Your task to perform on an android device: What is the news today? Image 0: 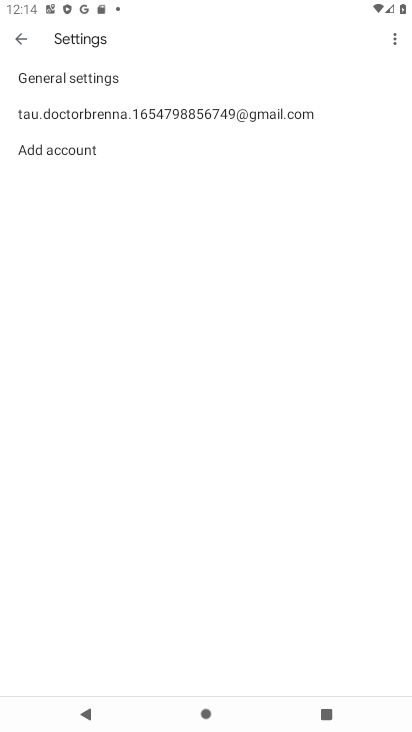
Step 0: press home button
Your task to perform on an android device: What is the news today? Image 1: 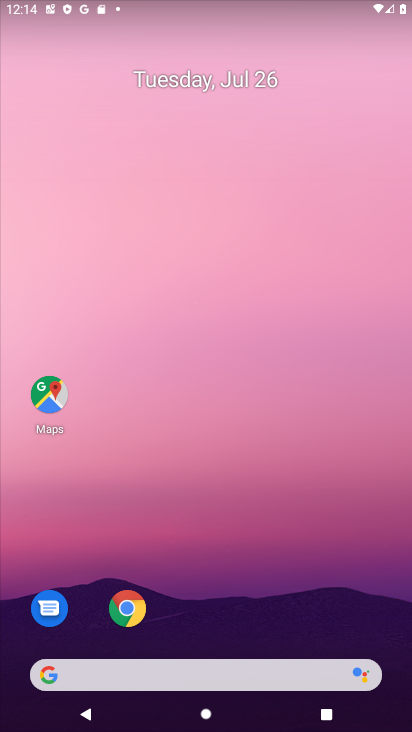
Step 1: click (152, 670)
Your task to perform on an android device: What is the news today? Image 2: 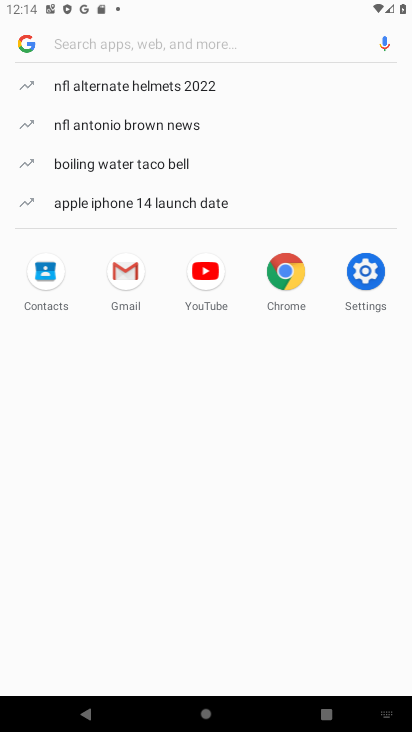
Step 2: click (31, 45)
Your task to perform on an android device: What is the news today? Image 3: 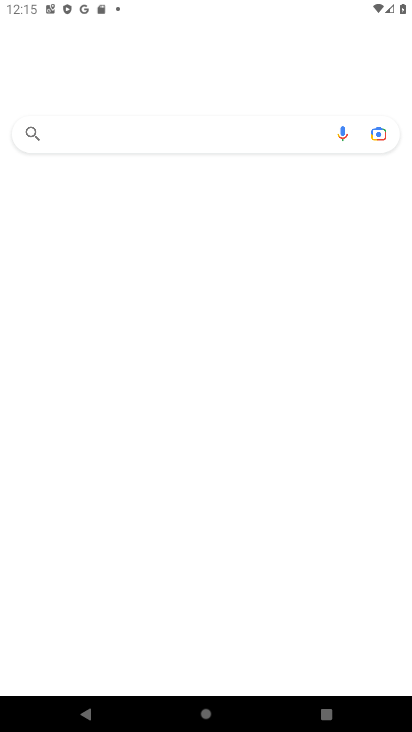
Step 3: click (19, 33)
Your task to perform on an android device: What is the news today? Image 4: 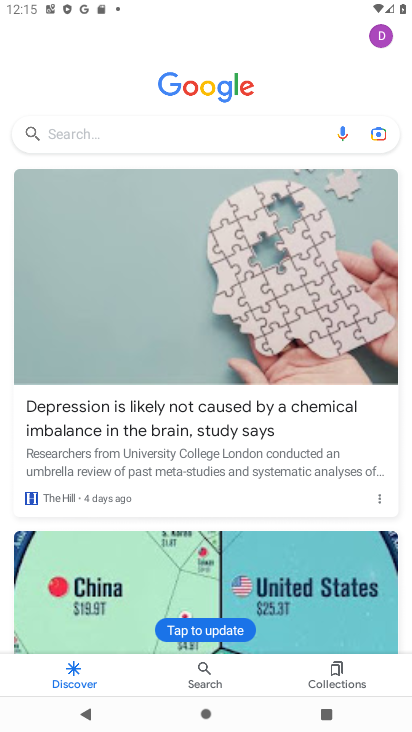
Step 4: task complete